Your task to perform on an android device: Check the settings for the Netflix app Image 0: 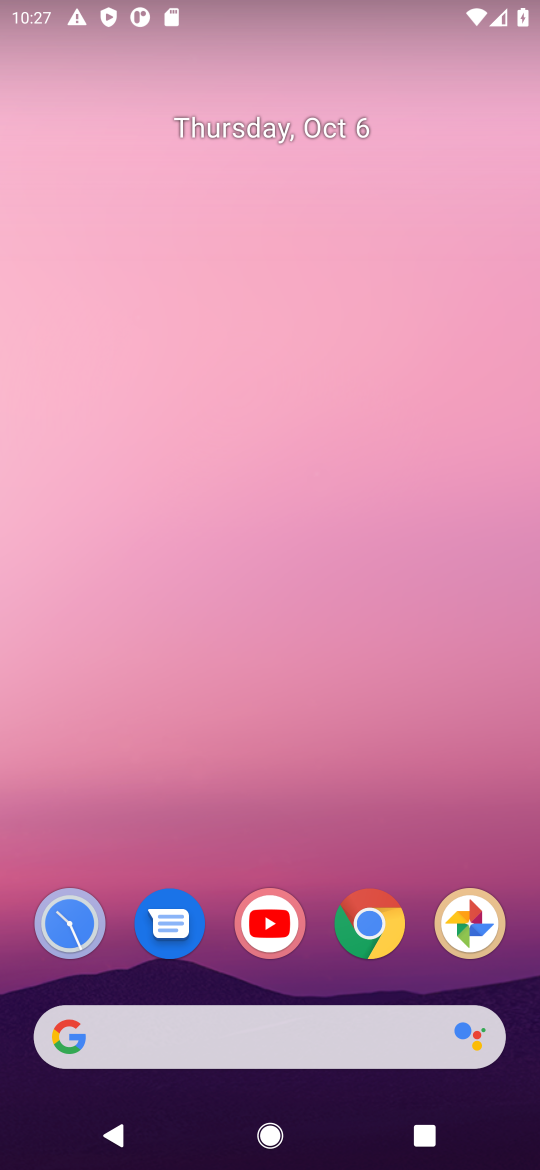
Step 0: drag from (317, 923) to (353, 20)
Your task to perform on an android device: Check the settings for the Netflix app Image 1: 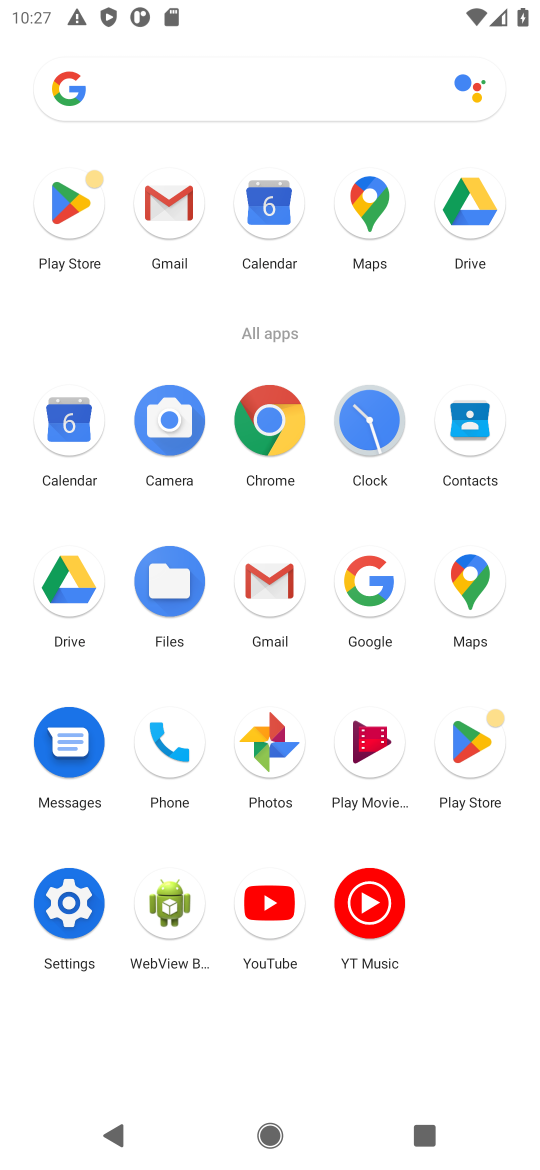
Step 1: task complete